Your task to perform on an android device: Go to settings Image 0: 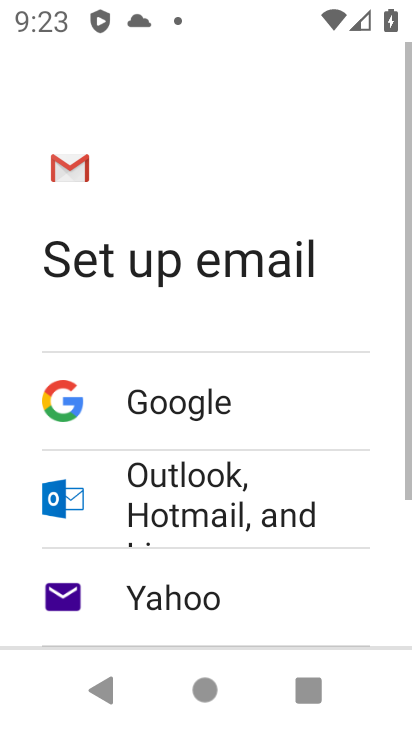
Step 0: press home button
Your task to perform on an android device: Go to settings Image 1: 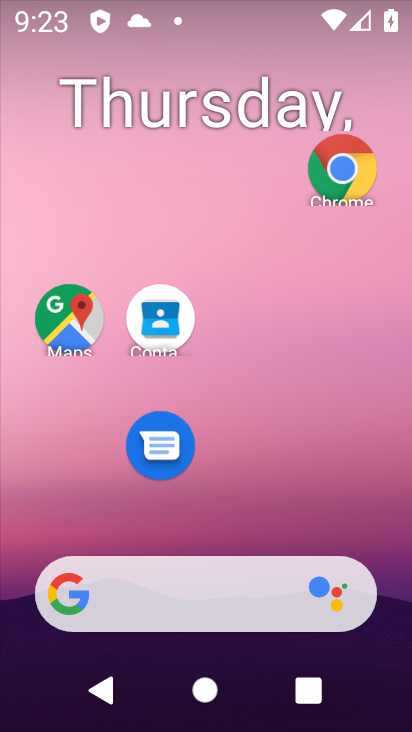
Step 1: drag from (240, 650) to (268, 223)
Your task to perform on an android device: Go to settings Image 2: 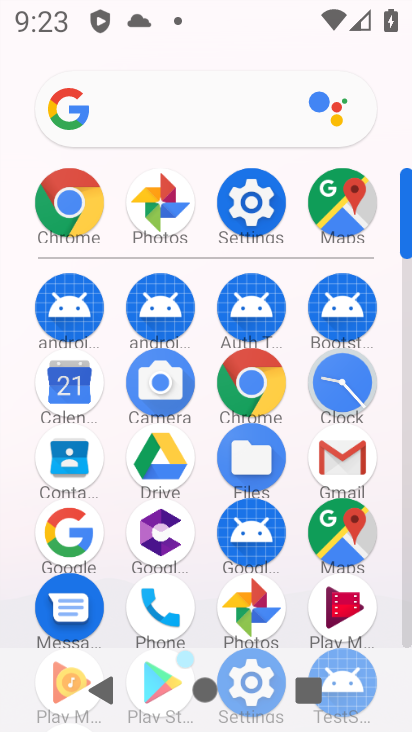
Step 2: click (249, 198)
Your task to perform on an android device: Go to settings Image 3: 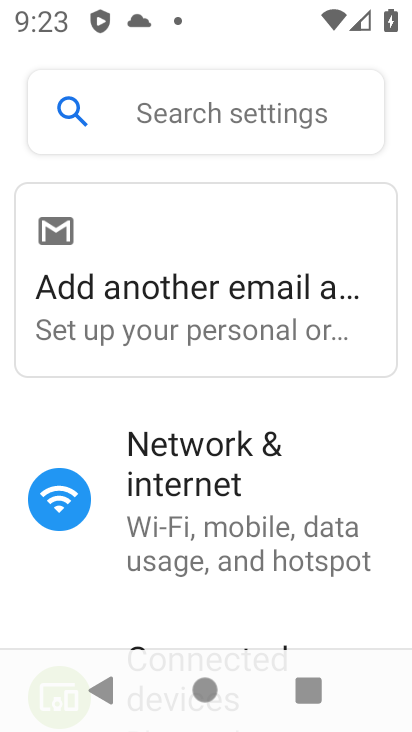
Step 3: task complete